Your task to perform on an android device: Open maps Image 0: 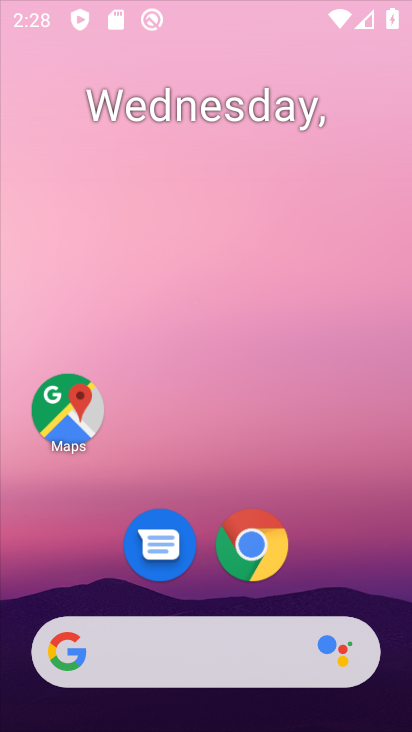
Step 0: press home button
Your task to perform on an android device: Open maps Image 1: 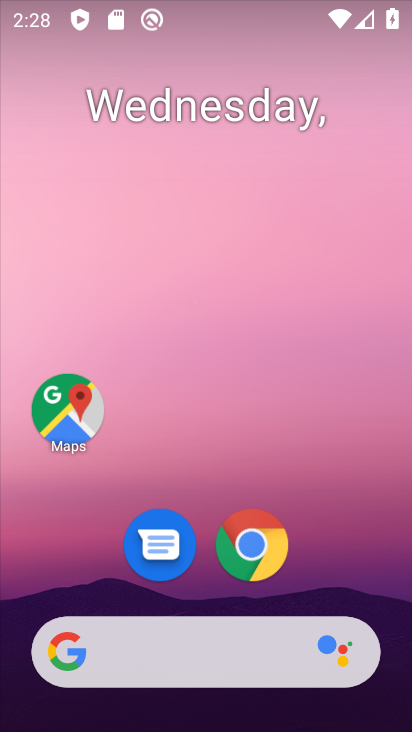
Step 1: press home button
Your task to perform on an android device: Open maps Image 2: 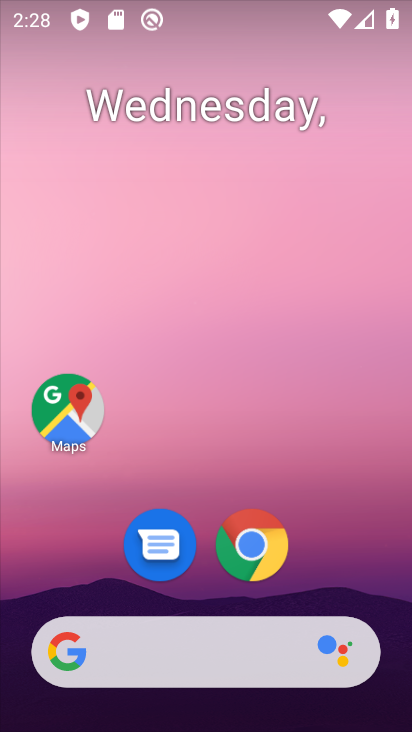
Step 2: click (68, 407)
Your task to perform on an android device: Open maps Image 3: 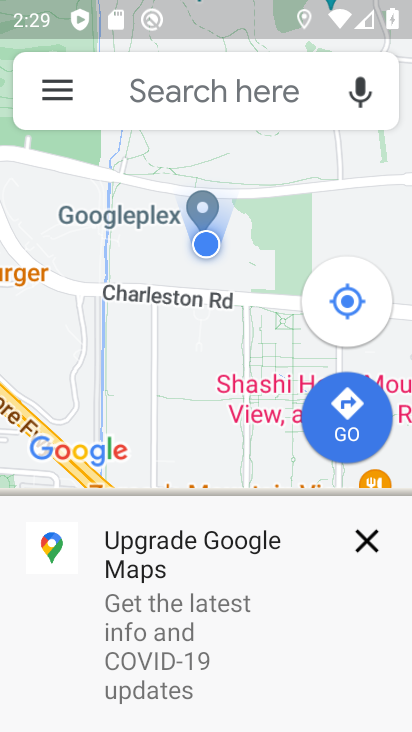
Step 3: task complete